Your task to perform on an android device: turn on notifications settings in the gmail app Image 0: 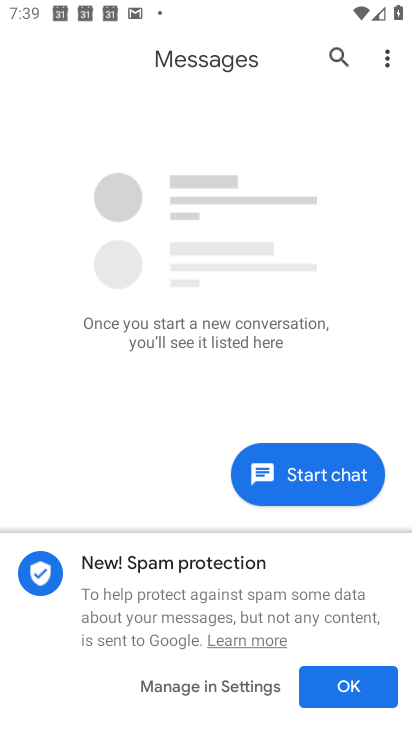
Step 0: press home button
Your task to perform on an android device: turn on notifications settings in the gmail app Image 1: 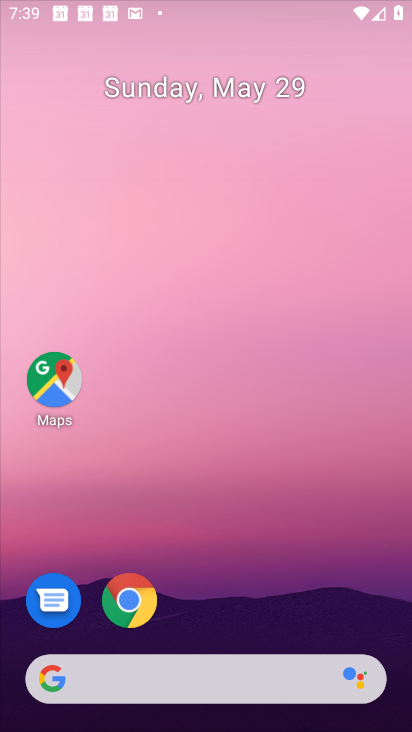
Step 1: drag from (300, 584) to (308, 199)
Your task to perform on an android device: turn on notifications settings in the gmail app Image 2: 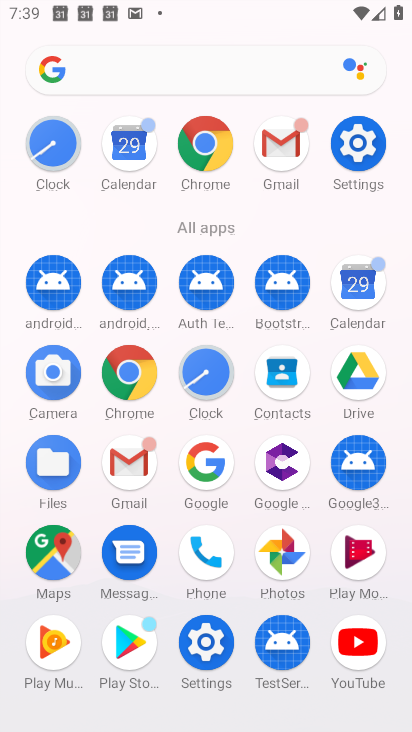
Step 2: click (117, 476)
Your task to perform on an android device: turn on notifications settings in the gmail app Image 3: 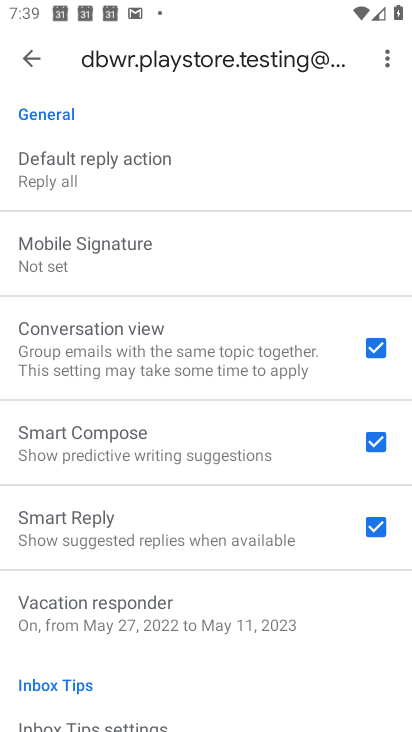
Step 3: drag from (164, 548) to (209, 257)
Your task to perform on an android device: turn on notifications settings in the gmail app Image 4: 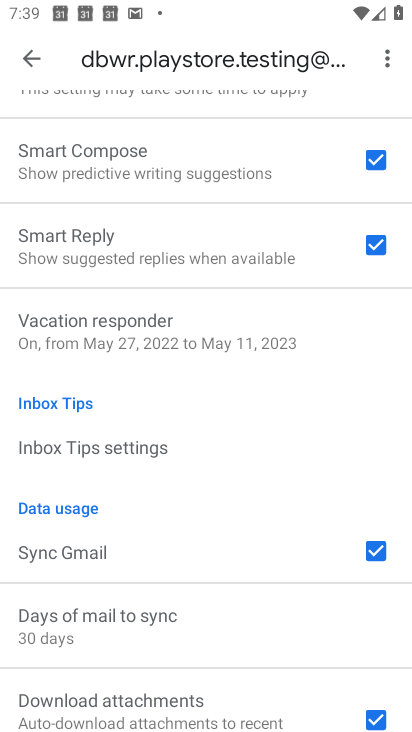
Step 4: drag from (229, 522) to (222, 180)
Your task to perform on an android device: turn on notifications settings in the gmail app Image 5: 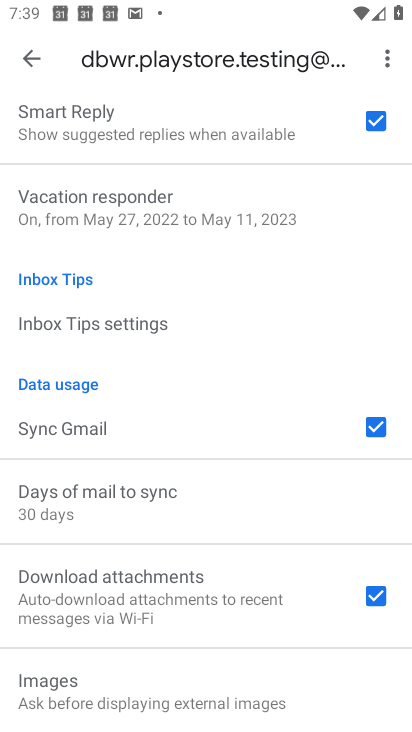
Step 5: drag from (195, 119) to (246, 597)
Your task to perform on an android device: turn on notifications settings in the gmail app Image 6: 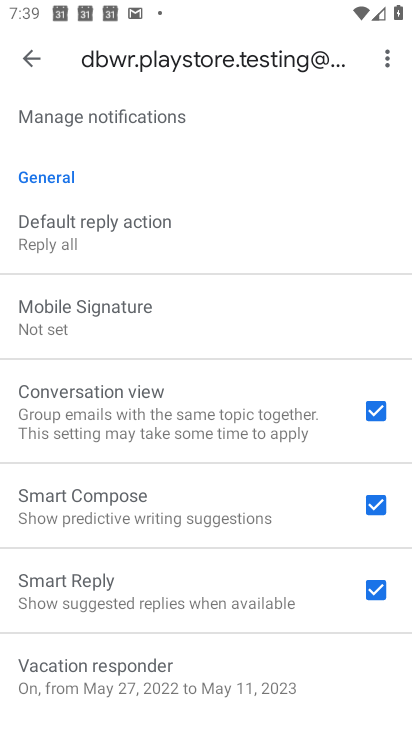
Step 6: drag from (252, 228) to (250, 553)
Your task to perform on an android device: turn on notifications settings in the gmail app Image 7: 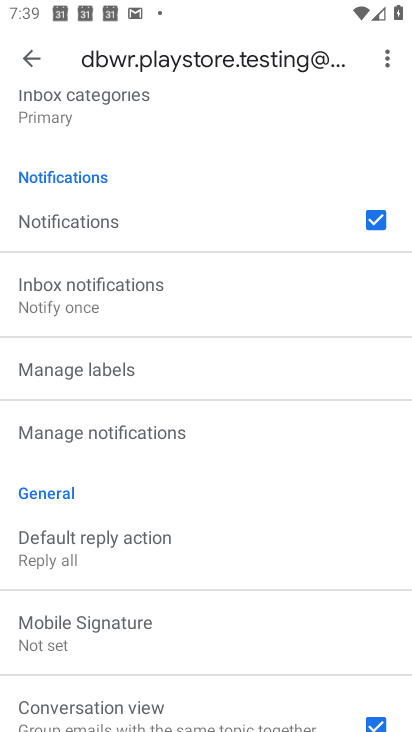
Step 7: drag from (182, 211) to (223, 630)
Your task to perform on an android device: turn on notifications settings in the gmail app Image 8: 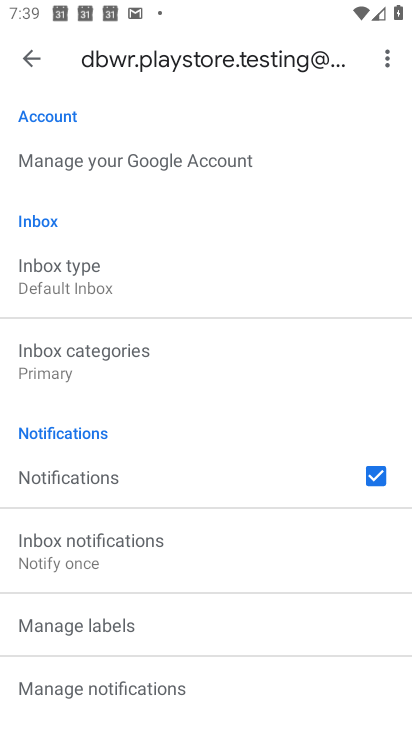
Step 8: click (182, 689)
Your task to perform on an android device: turn on notifications settings in the gmail app Image 9: 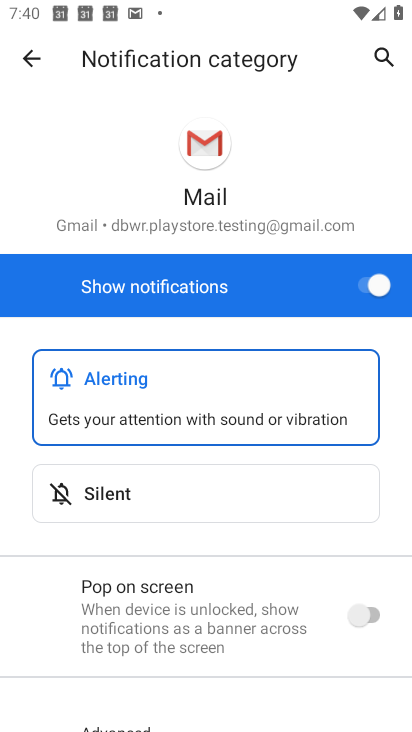
Step 9: task complete